Your task to perform on an android device: Go to calendar. Show me events next week Image 0: 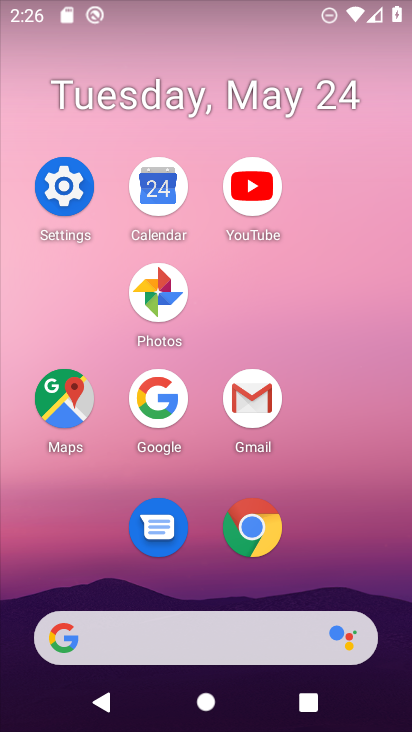
Step 0: click (155, 172)
Your task to perform on an android device: Go to calendar. Show me events next week Image 1: 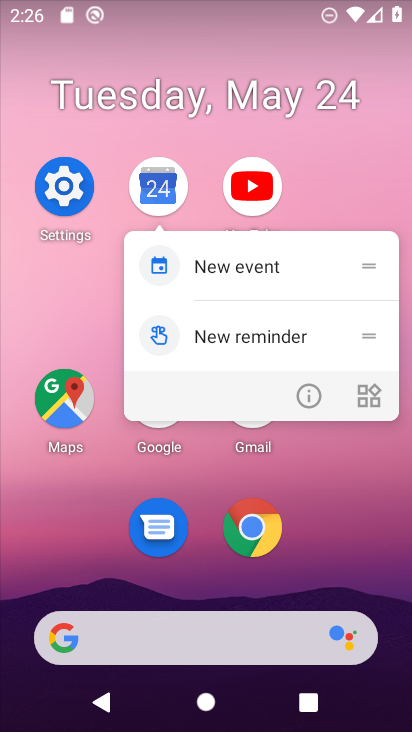
Step 1: click (166, 178)
Your task to perform on an android device: Go to calendar. Show me events next week Image 2: 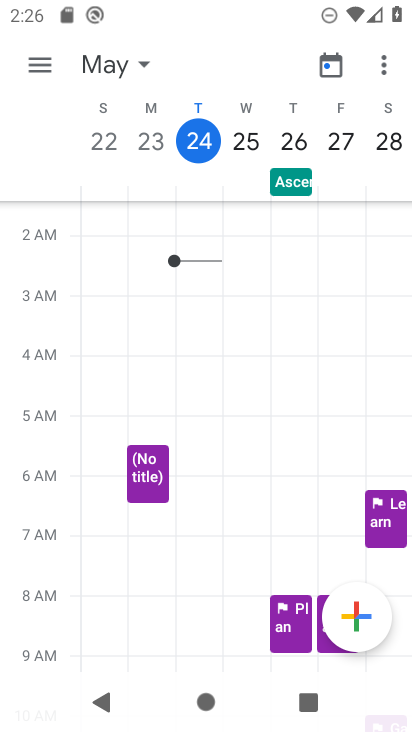
Step 2: task complete